Your task to perform on an android device: turn off translation in the chrome app Image 0: 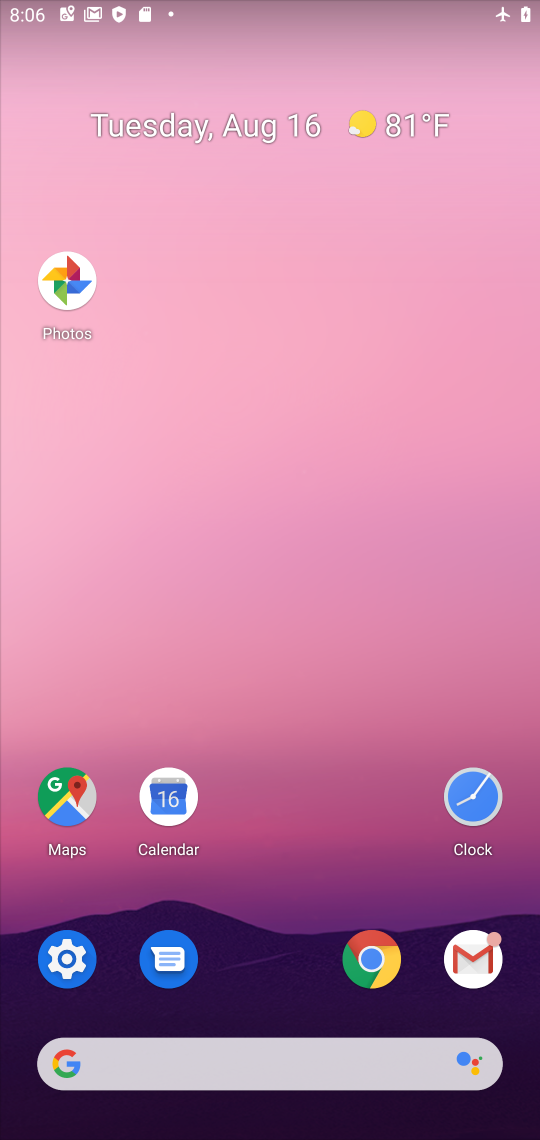
Step 0: click (370, 962)
Your task to perform on an android device: turn off translation in the chrome app Image 1: 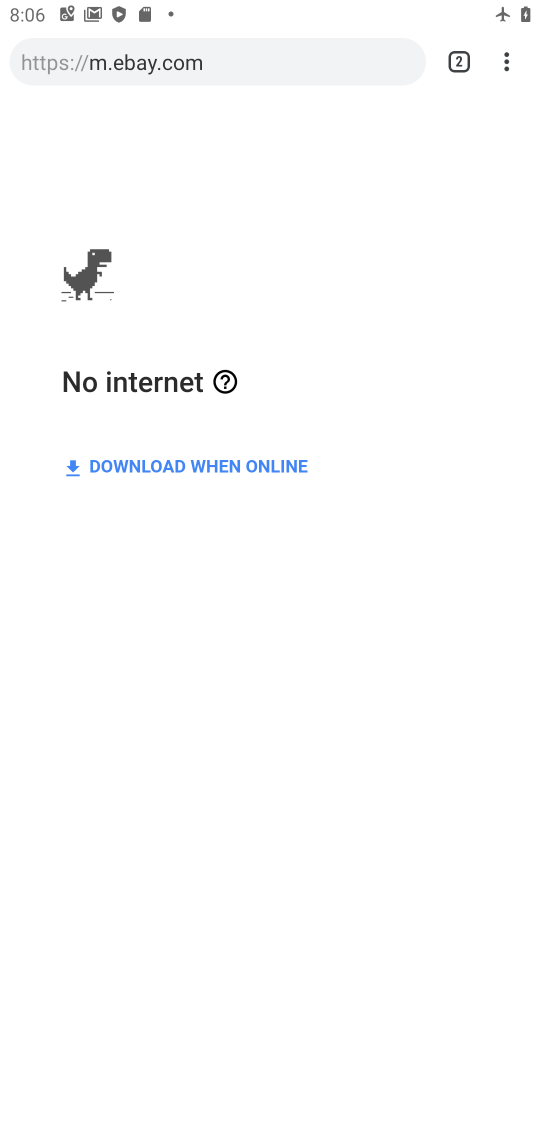
Step 1: click (509, 58)
Your task to perform on an android device: turn off translation in the chrome app Image 2: 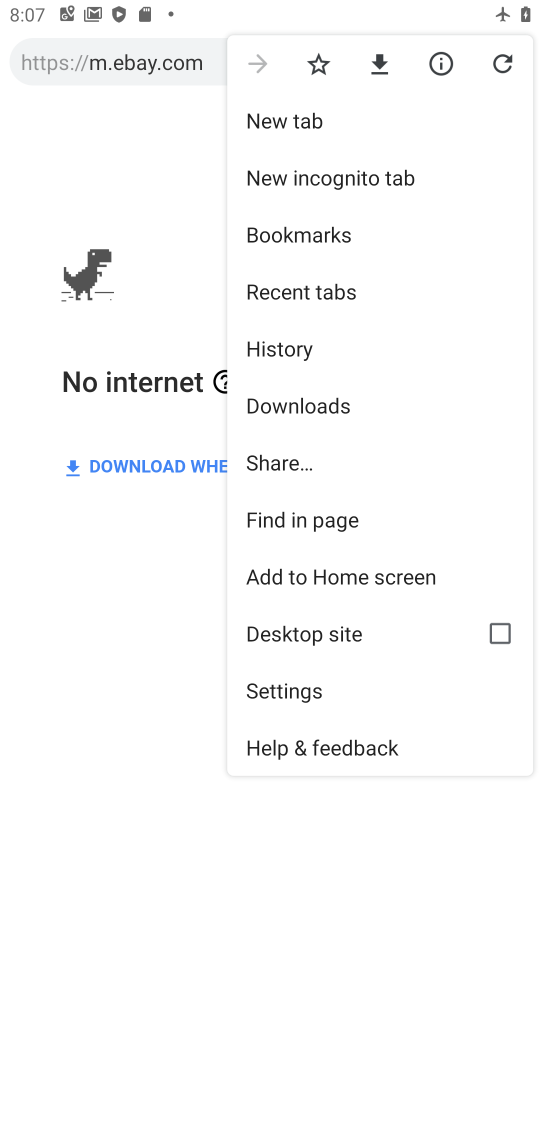
Step 2: click (289, 690)
Your task to perform on an android device: turn off translation in the chrome app Image 3: 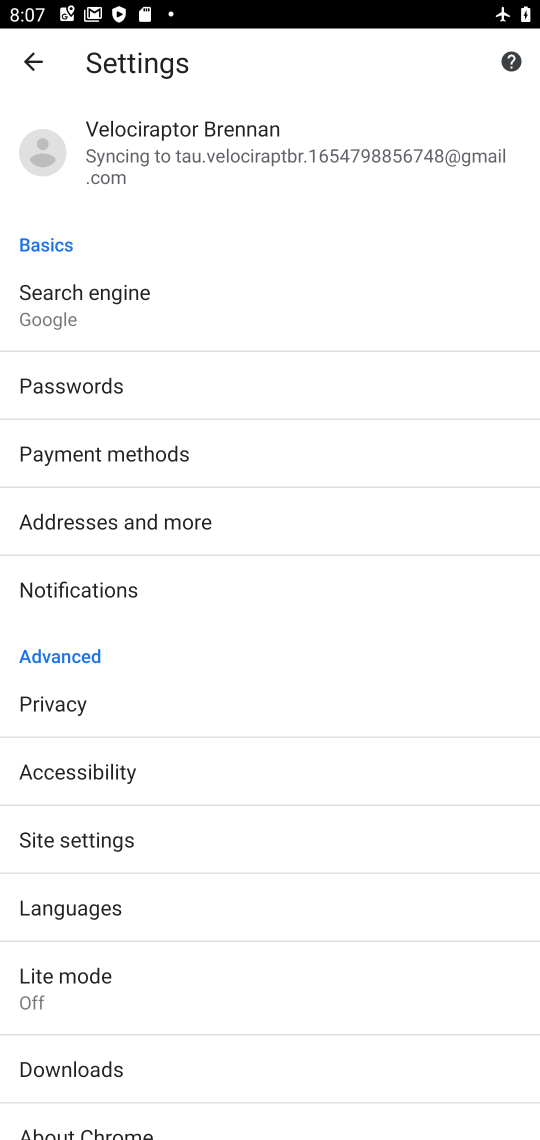
Step 3: click (76, 899)
Your task to perform on an android device: turn off translation in the chrome app Image 4: 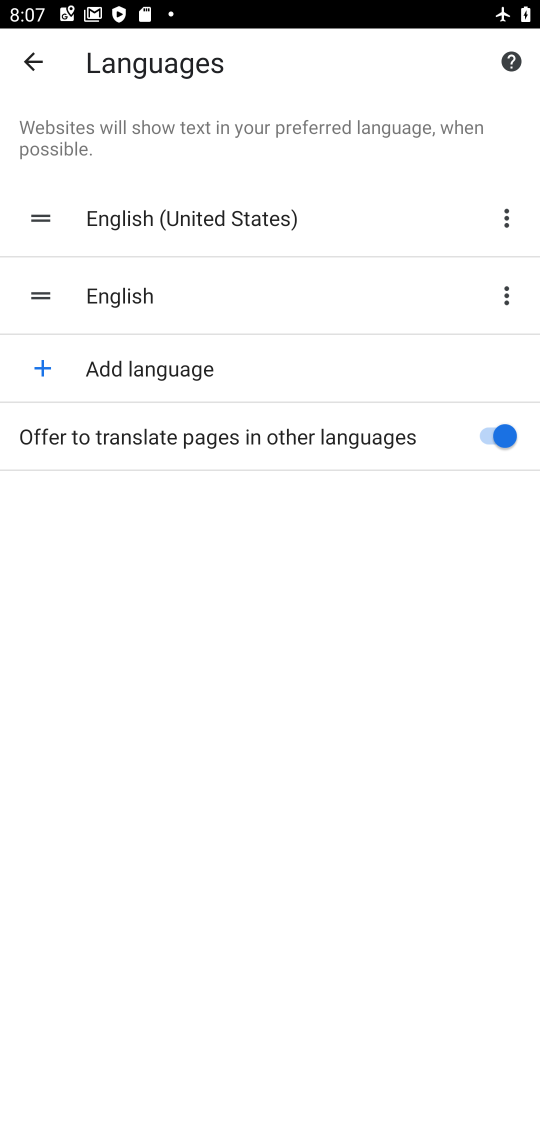
Step 4: click (496, 432)
Your task to perform on an android device: turn off translation in the chrome app Image 5: 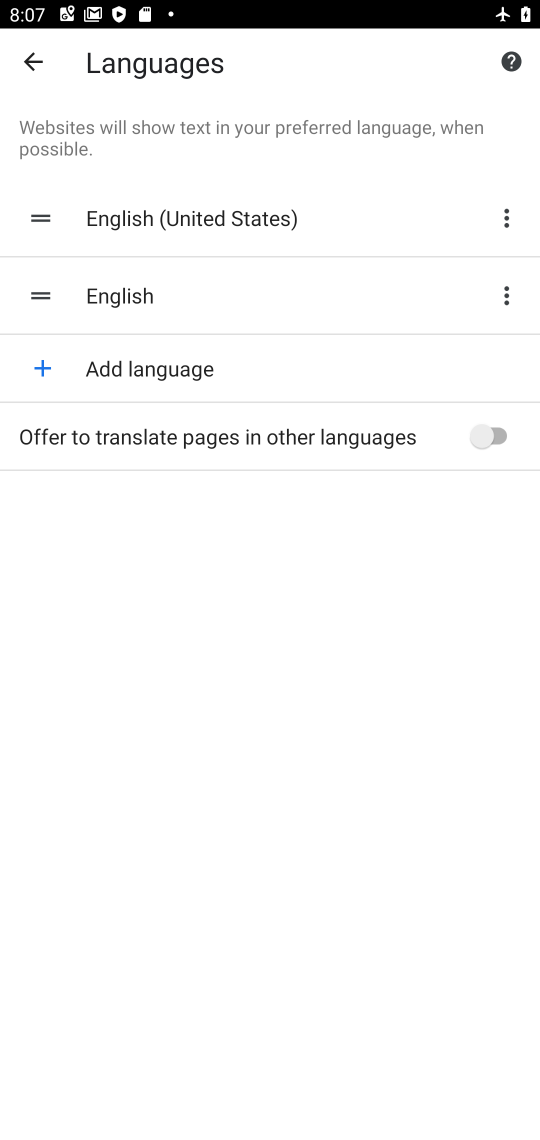
Step 5: task complete